Your task to perform on an android device: turn on priority inbox in the gmail app Image 0: 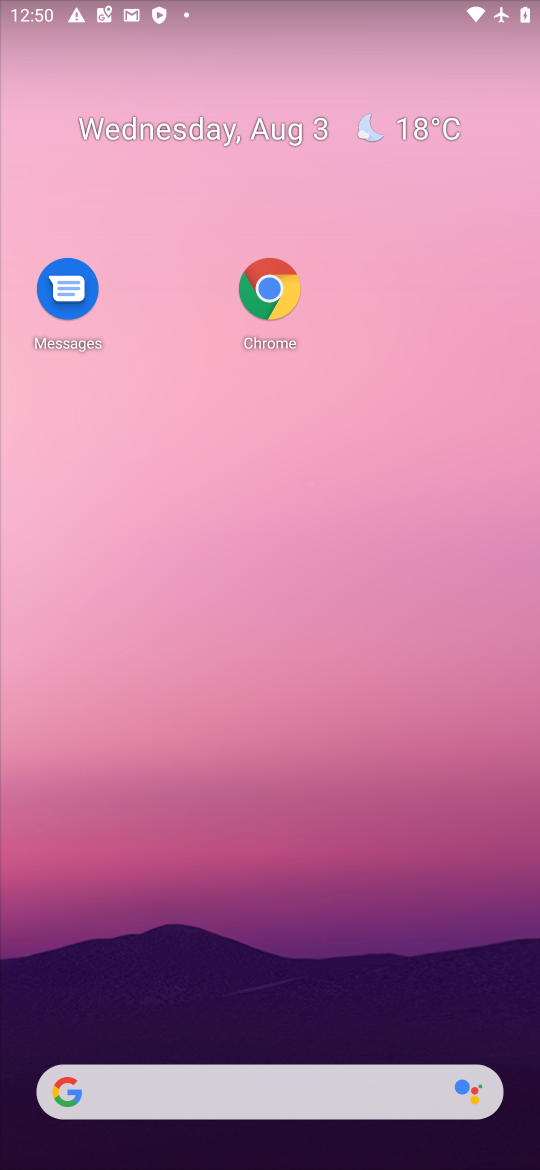
Step 0: drag from (251, 1010) to (221, 104)
Your task to perform on an android device: turn on priority inbox in the gmail app Image 1: 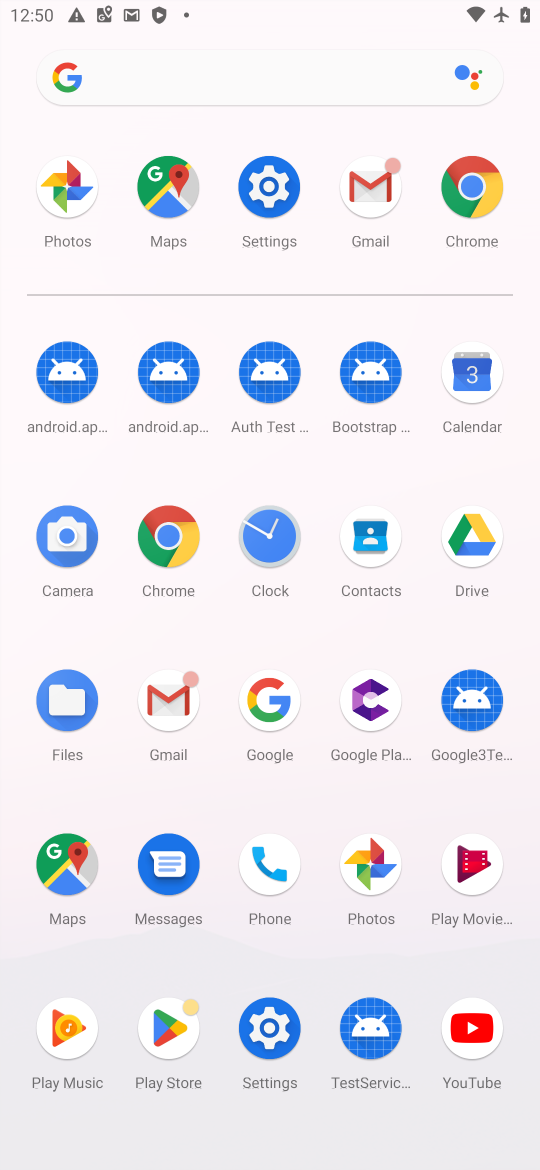
Step 1: click (383, 223)
Your task to perform on an android device: turn on priority inbox in the gmail app Image 2: 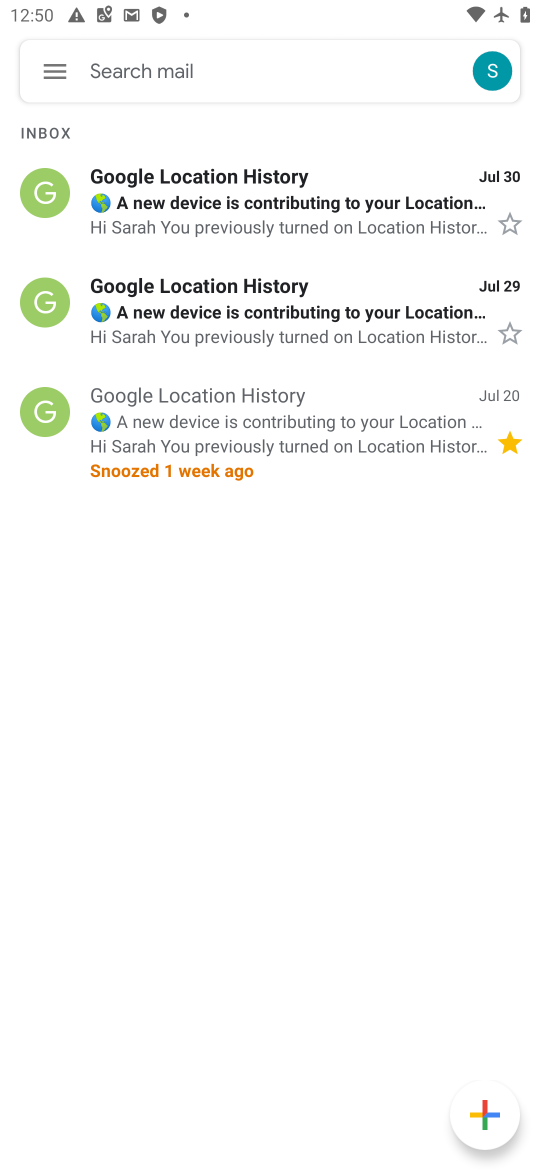
Step 2: task complete